Your task to perform on an android device: turn on improve location accuracy Image 0: 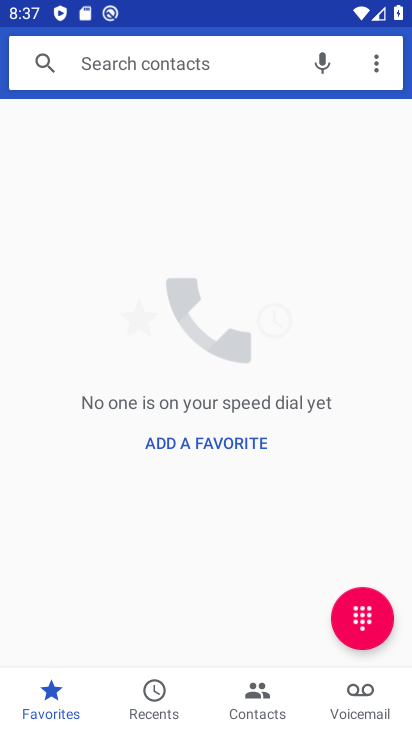
Step 0: press home button
Your task to perform on an android device: turn on improve location accuracy Image 1: 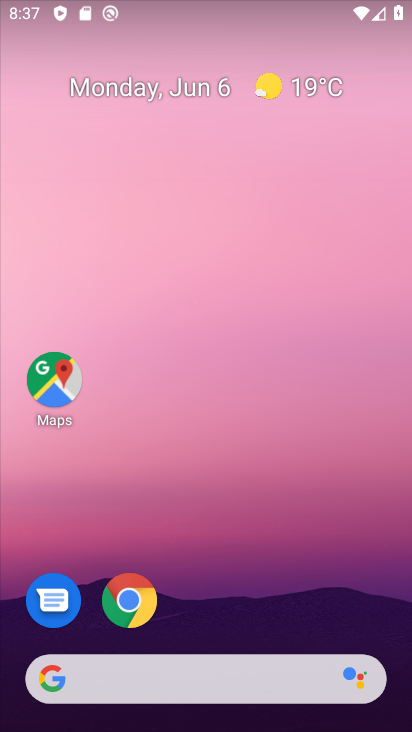
Step 1: drag from (298, 581) to (224, 19)
Your task to perform on an android device: turn on improve location accuracy Image 2: 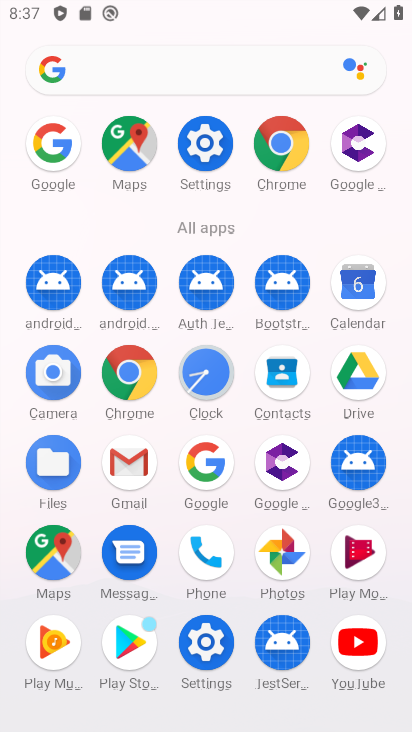
Step 2: click (215, 146)
Your task to perform on an android device: turn on improve location accuracy Image 3: 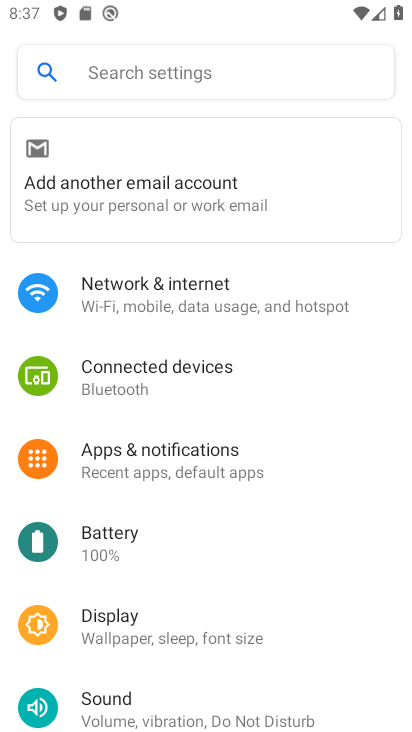
Step 3: drag from (283, 637) to (297, 22)
Your task to perform on an android device: turn on improve location accuracy Image 4: 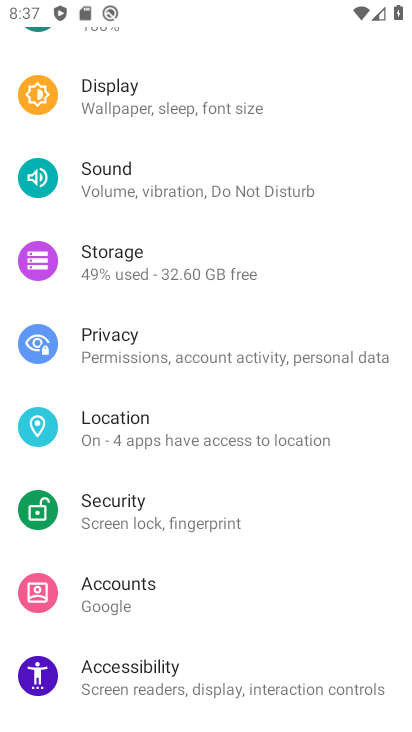
Step 4: click (213, 416)
Your task to perform on an android device: turn on improve location accuracy Image 5: 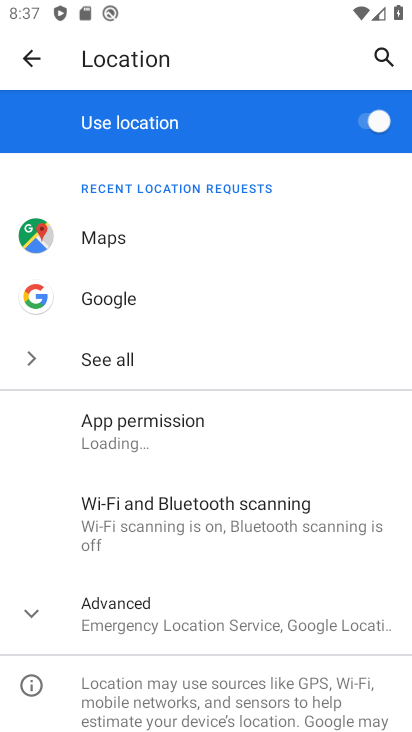
Step 5: drag from (292, 568) to (312, 221)
Your task to perform on an android device: turn on improve location accuracy Image 6: 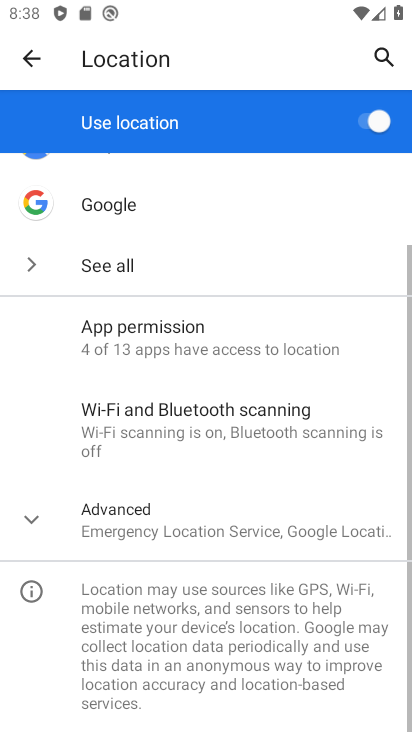
Step 6: click (231, 514)
Your task to perform on an android device: turn on improve location accuracy Image 7: 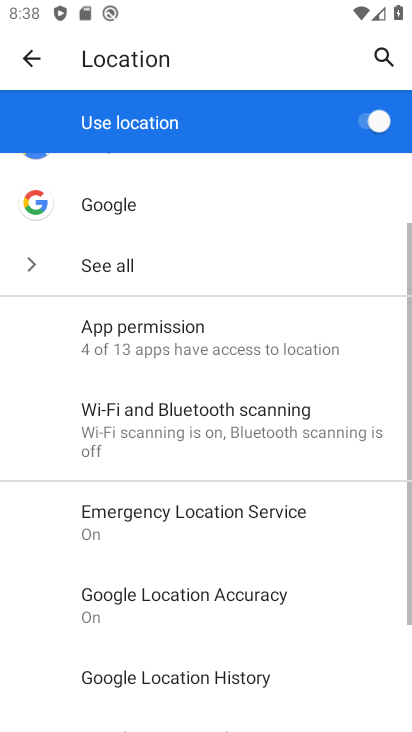
Step 7: drag from (263, 622) to (279, 364)
Your task to perform on an android device: turn on improve location accuracy Image 8: 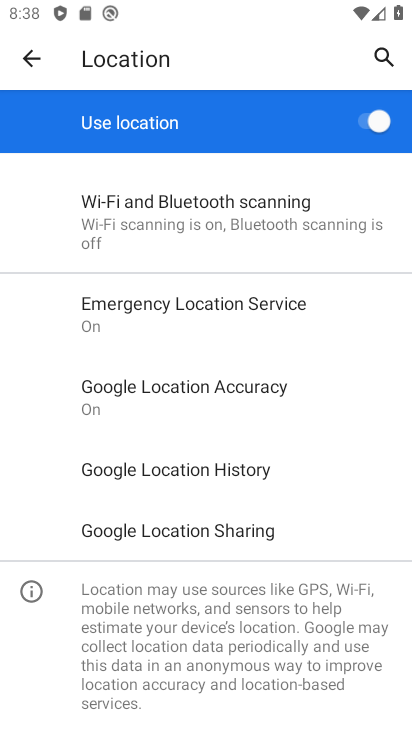
Step 8: click (270, 393)
Your task to perform on an android device: turn on improve location accuracy Image 9: 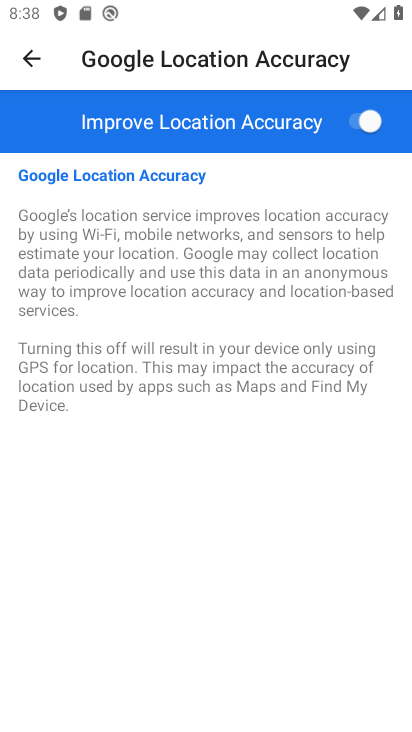
Step 9: task complete